Your task to perform on an android device: empty trash in google photos Image 0: 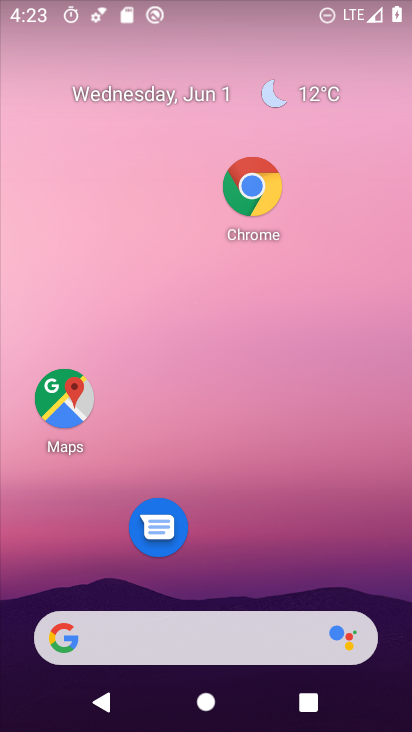
Step 0: click (351, 105)
Your task to perform on an android device: empty trash in google photos Image 1: 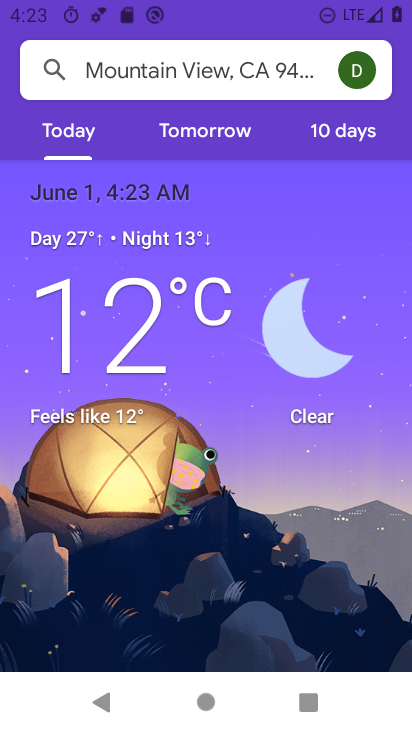
Step 1: press home button
Your task to perform on an android device: empty trash in google photos Image 2: 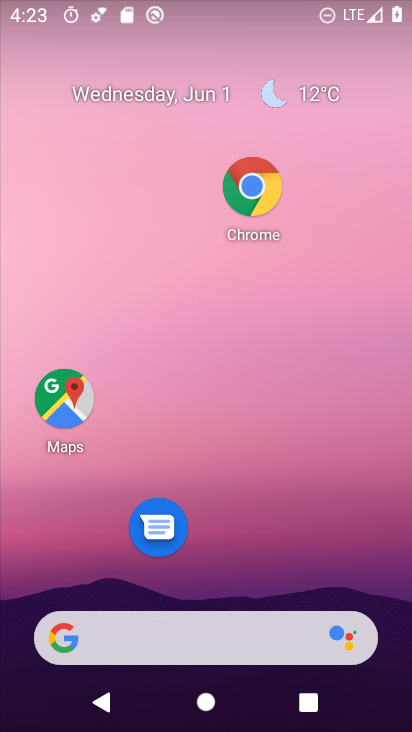
Step 2: drag from (193, 668) to (346, 98)
Your task to perform on an android device: empty trash in google photos Image 3: 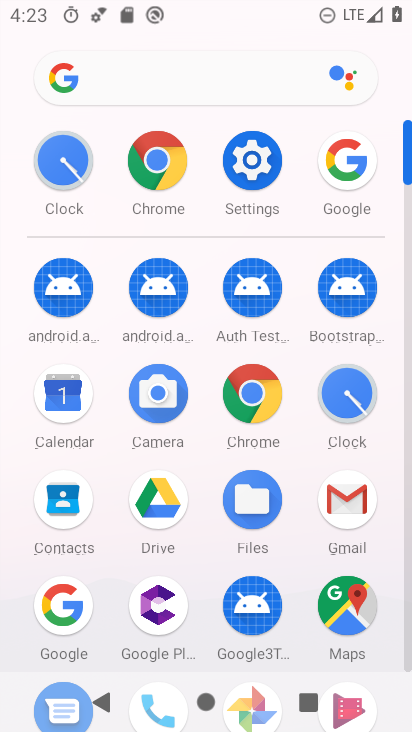
Step 3: drag from (242, 495) to (354, 166)
Your task to perform on an android device: empty trash in google photos Image 4: 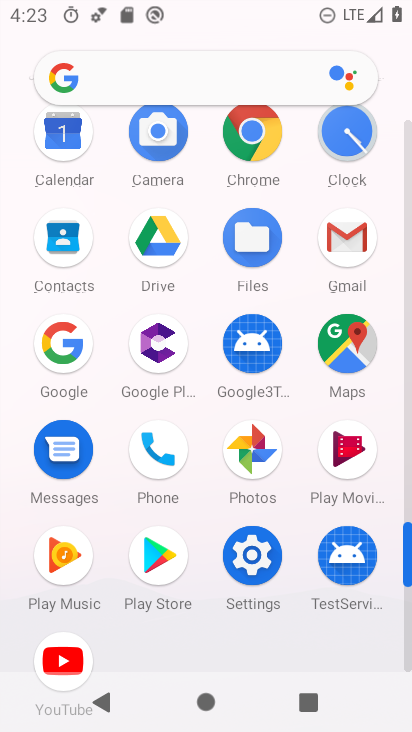
Step 4: click (261, 469)
Your task to perform on an android device: empty trash in google photos Image 5: 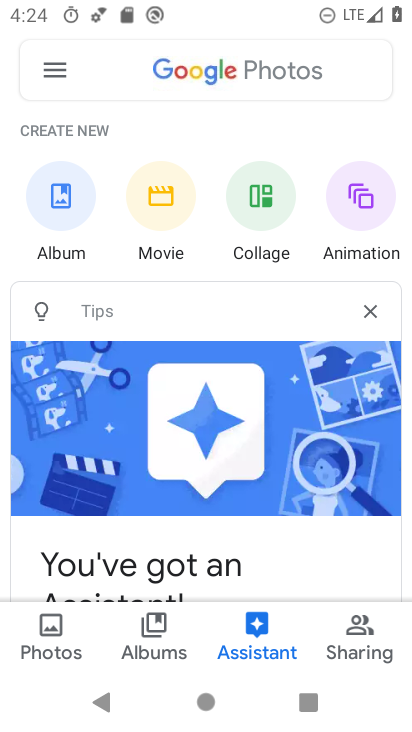
Step 5: click (56, 65)
Your task to perform on an android device: empty trash in google photos Image 6: 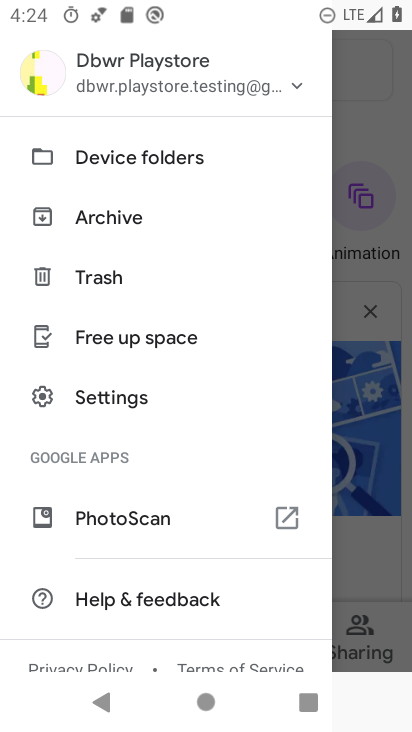
Step 6: click (108, 288)
Your task to perform on an android device: empty trash in google photos Image 7: 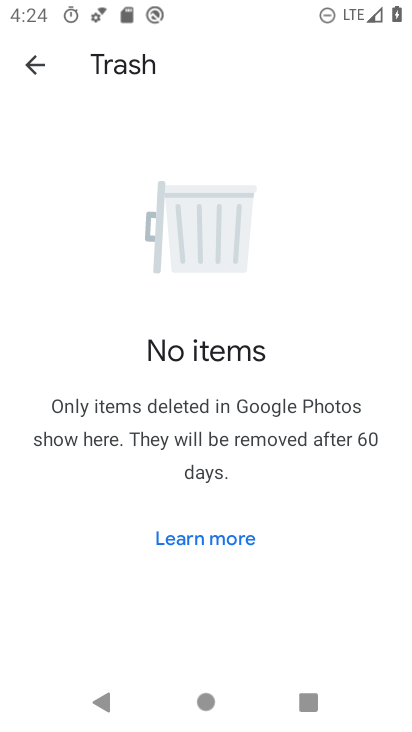
Step 7: task complete